Your task to perform on an android device: turn on sleep mode Image 0: 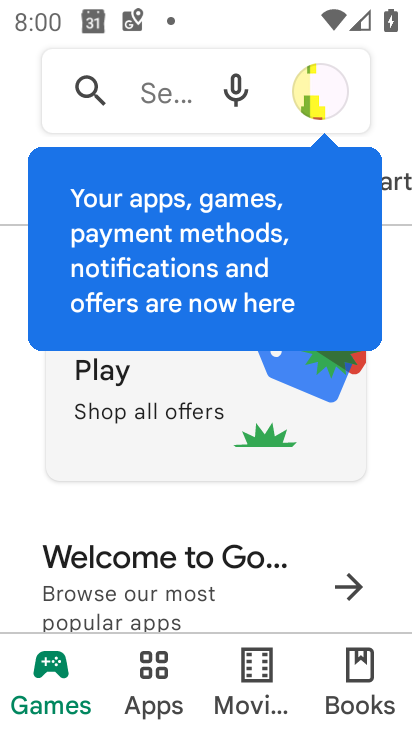
Step 0: press home button
Your task to perform on an android device: turn on sleep mode Image 1: 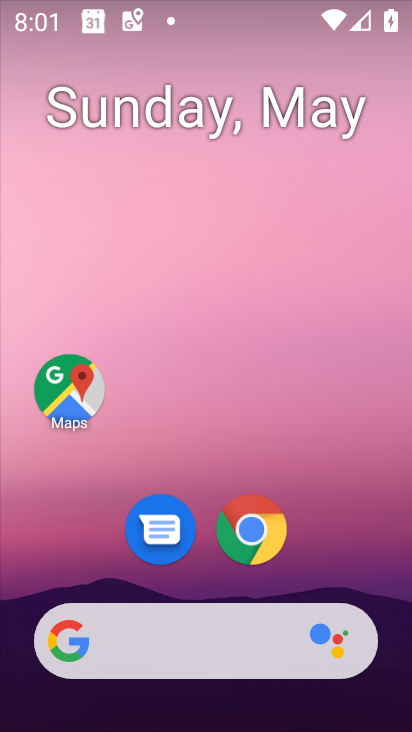
Step 1: drag from (353, 556) to (309, 117)
Your task to perform on an android device: turn on sleep mode Image 2: 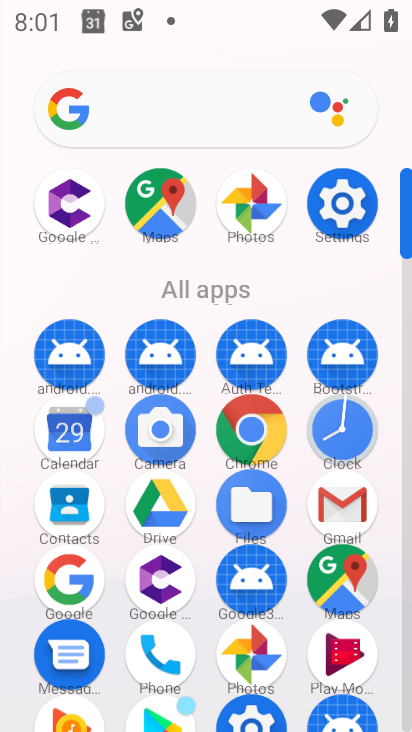
Step 2: click (334, 224)
Your task to perform on an android device: turn on sleep mode Image 3: 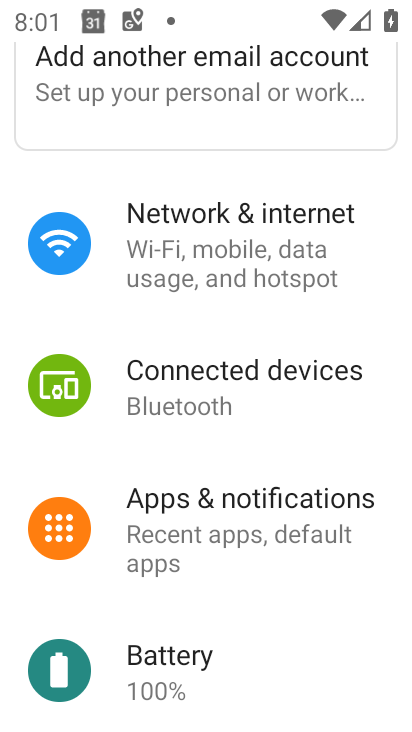
Step 3: click (297, 248)
Your task to perform on an android device: turn on sleep mode Image 4: 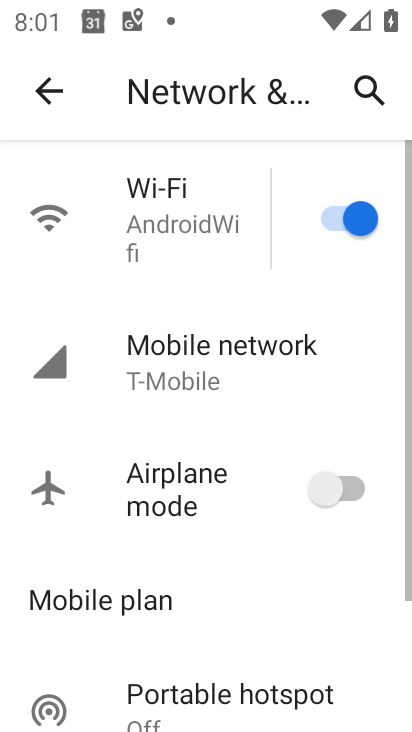
Step 4: click (50, 69)
Your task to perform on an android device: turn on sleep mode Image 5: 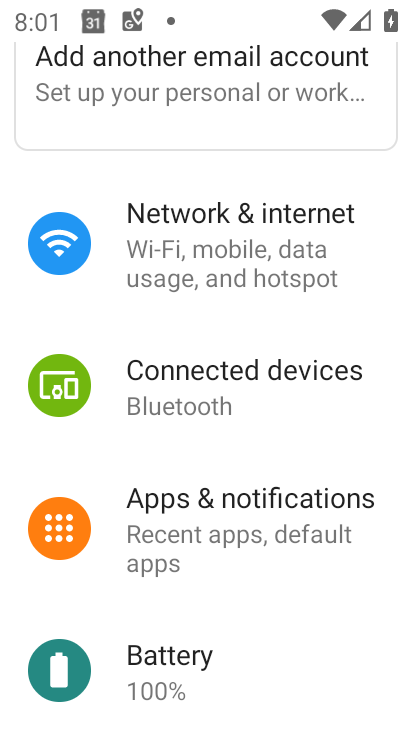
Step 5: drag from (191, 611) to (236, 262)
Your task to perform on an android device: turn on sleep mode Image 6: 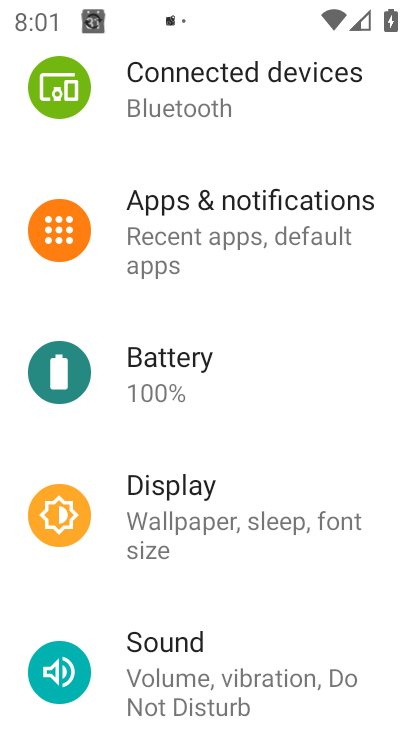
Step 6: click (298, 517)
Your task to perform on an android device: turn on sleep mode Image 7: 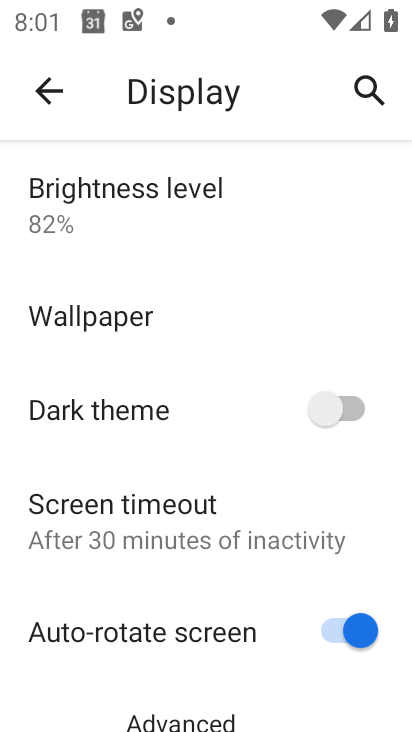
Step 7: drag from (222, 508) to (250, 266)
Your task to perform on an android device: turn on sleep mode Image 8: 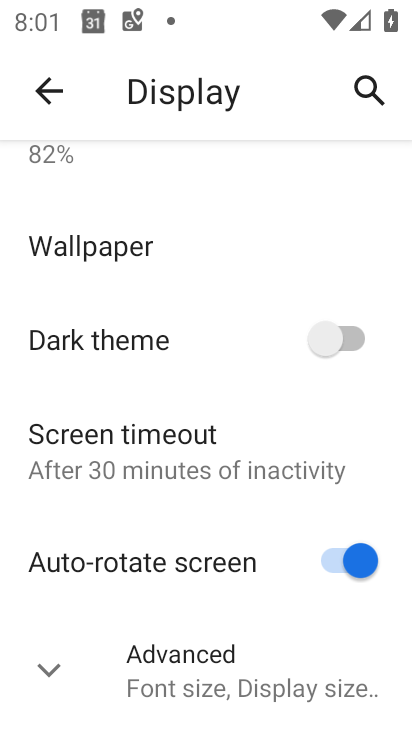
Step 8: click (207, 424)
Your task to perform on an android device: turn on sleep mode Image 9: 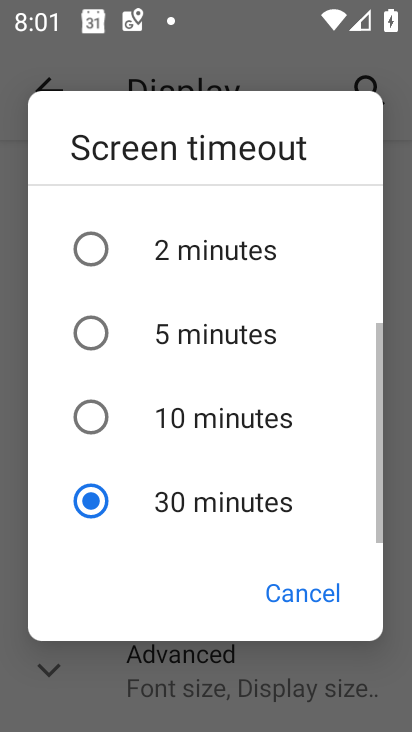
Step 9: click (248, 250)
Your task to perform on an android device: turn on sleep mode Image 10: 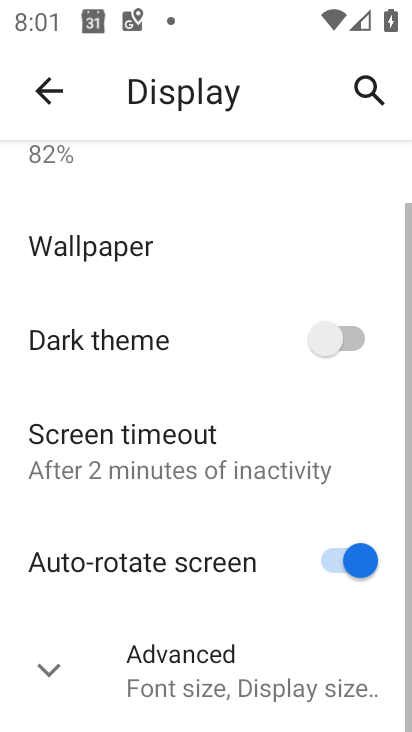
Step 10: task complete